Your task to perform on an android device: clear history in the chrome app Image 0: 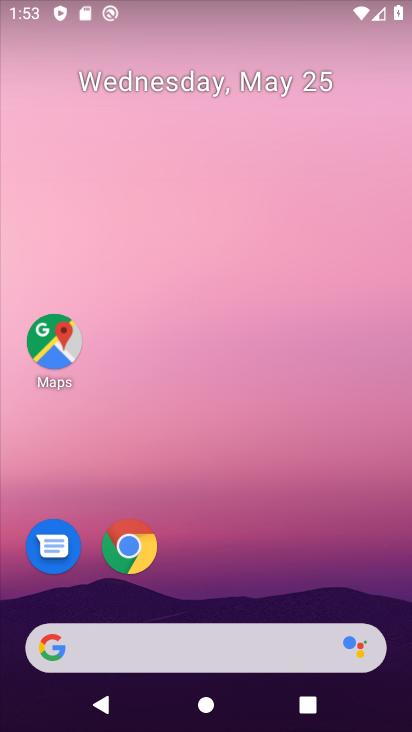
Step 0: click (127, 545)
Your task to perform on an android device: clear history in the chrome app Image 1: 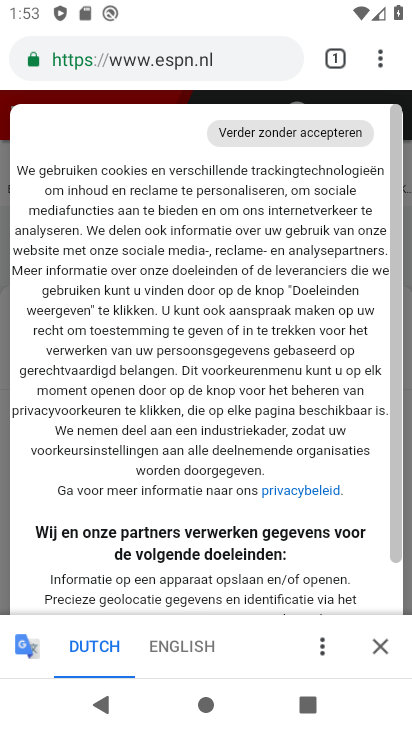
Step 1: click (381, 58)
Your task to perform on an android device: clear history in the chrome app Image 2: 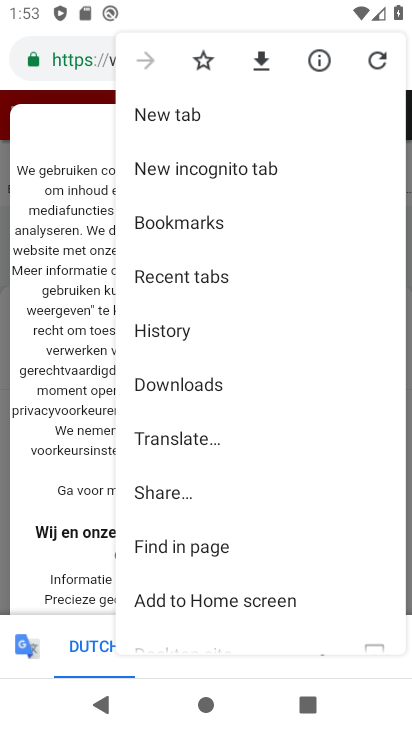
Step 2: click (169, 332)
Your task to perform on an android device: clear history in the chrome app Image 3: 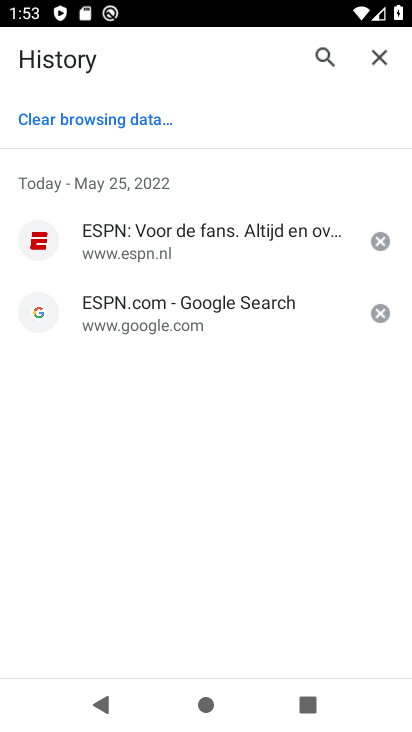
Step 3: click (119, 112)
Your task to perform on an android device: clear history in the chrome app Image 4: 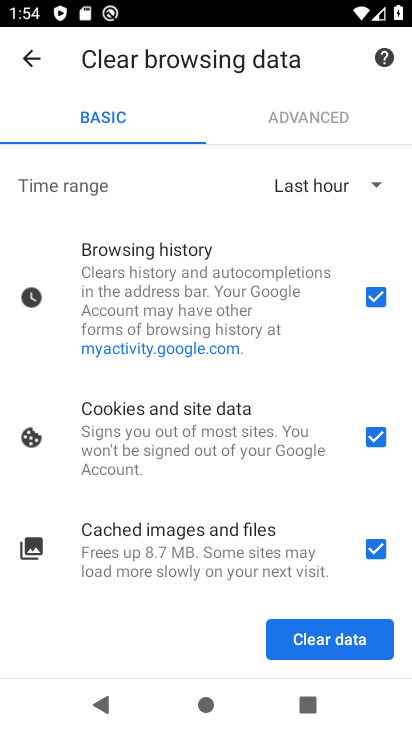
Step 4: click (349, 644)
Your task to perform on an android device: clear history in the chrome app Image 5: 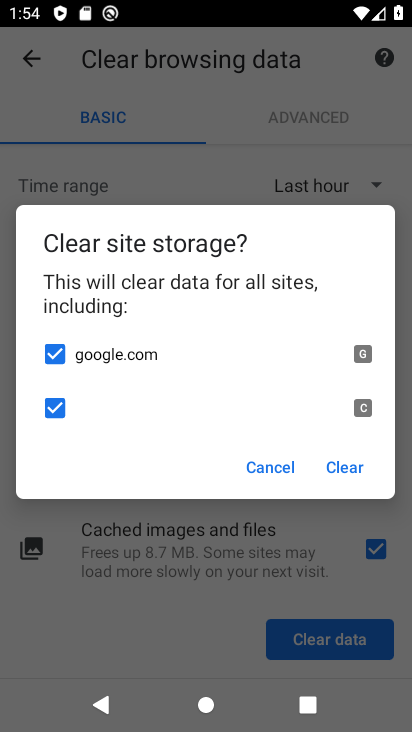
Step 5: click (356, 464)
Your task to perform on an android device: clear history in the chrome app Image 6: 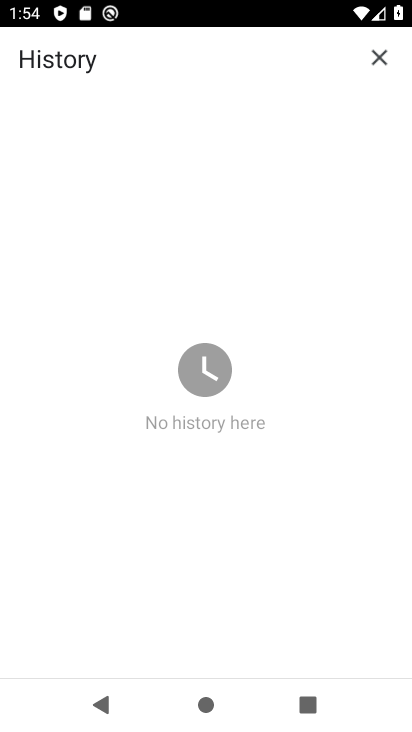
Step 6: task complete